Your task to perform on an android device: change the clock display to show seconds Image 0: 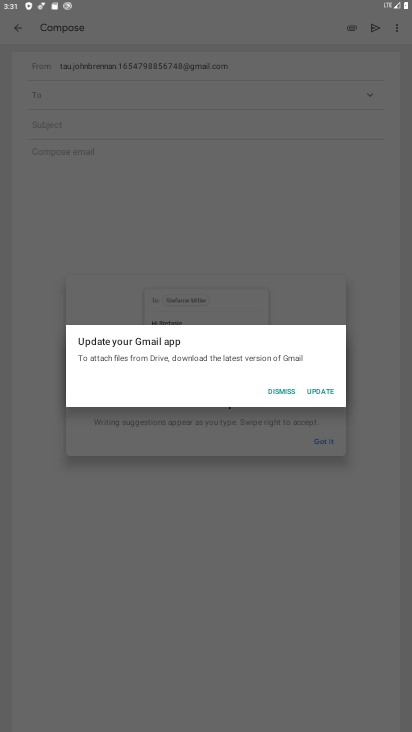
Step 0: press home button
Your task to perform on an android device: change the clock display to show seconds Image 1: 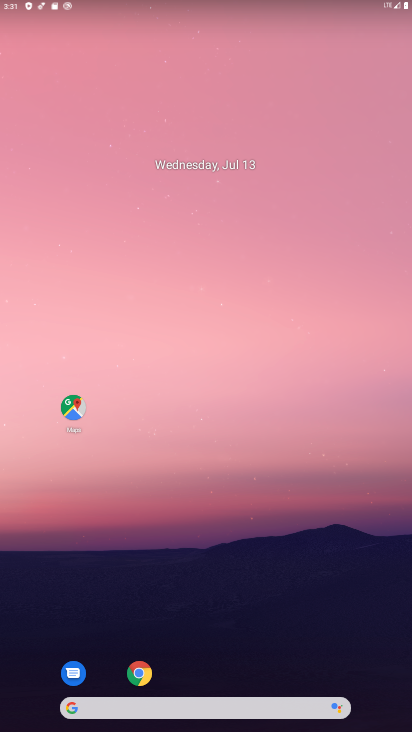
Step 1: drag from (236, 726) to (253, 169)
Your task to perform on an android device: change the clock display to show seconds Image 2: 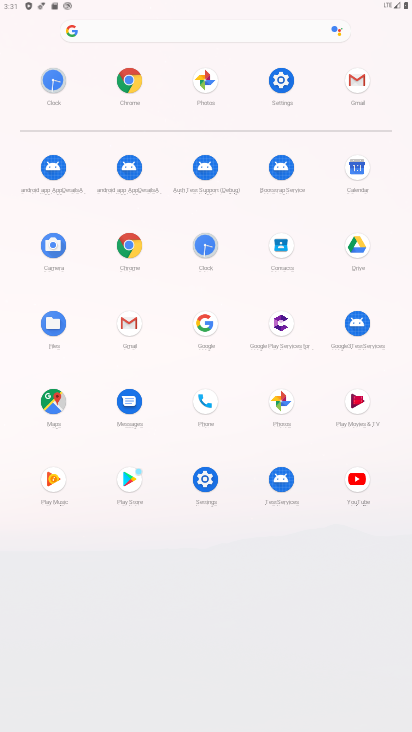
Step 2: click (207, 246)
Your task to perform on an android device: change the clock display to show seconds Image 3: 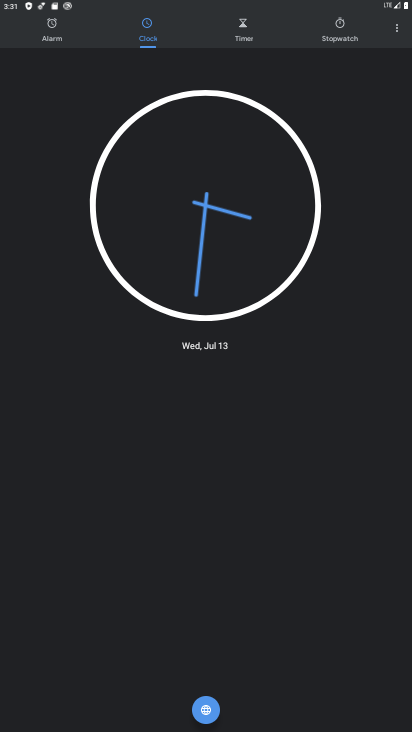
Step 3: click (397, 28)
Your task to perform on an android device: change the clock display to show seconds Image 4: 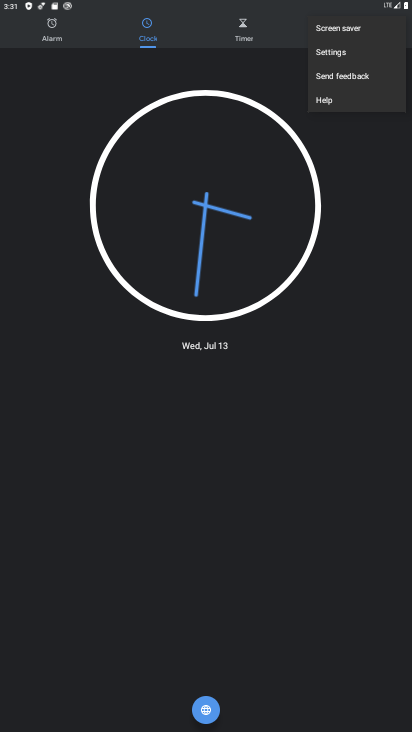
Step 4: click (332, 53)
Your task to perform on an android device: change the clock display to show seconds Image 5: 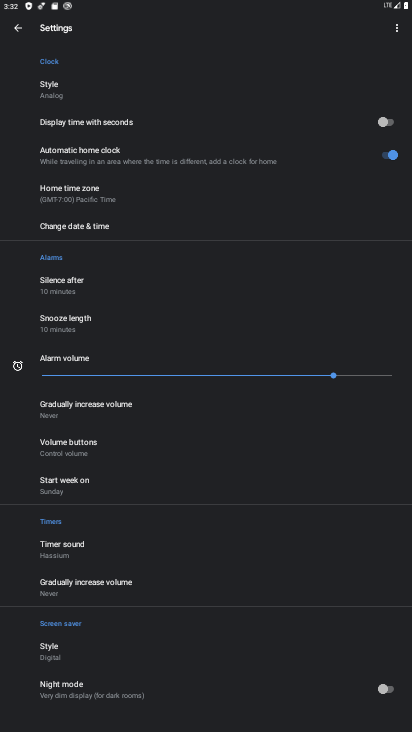
Step 5: click (391, 115)
Your task to perform on an android device: change the clock display to show seconds Image 6: 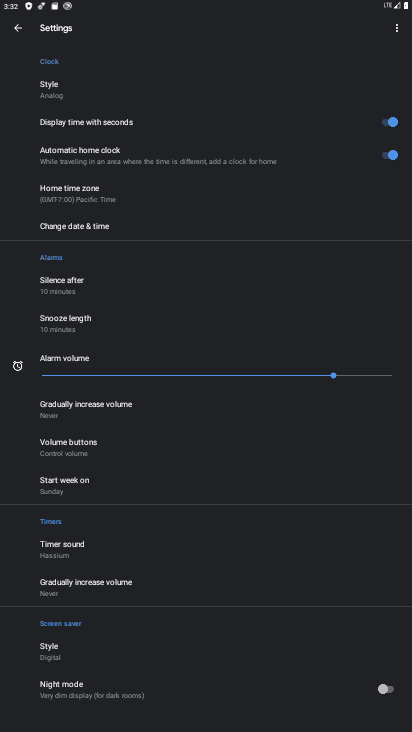
Step 6: task complete